Your task to perform on an android device: turn on location history Image 0: 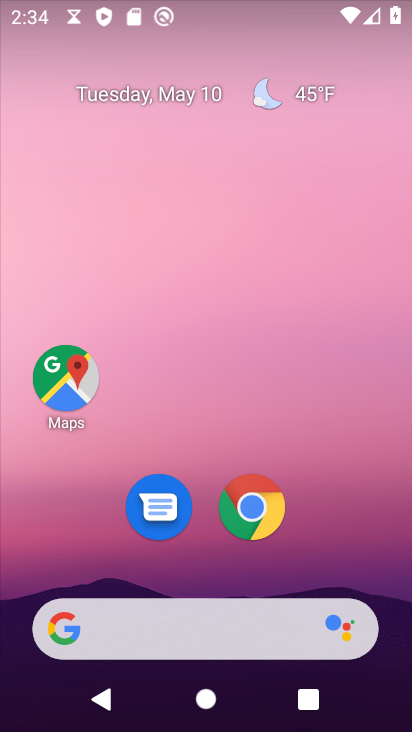
Step 0: drag from (321, 481) to (29, 89)
Your task to perform on an android device: turn on location history Image 1: 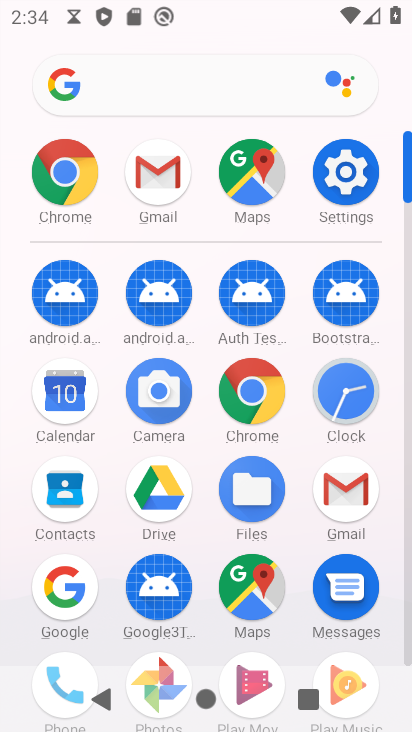
Step 1: click (357, 167)
Your task to perform on an android device: turn on location history Image 2: 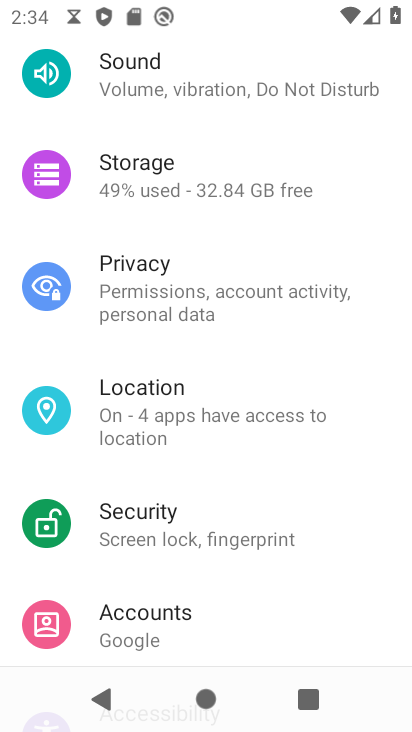
Step 2: click (193, 418)
Your task to perform on an android device: turn on location history Image 3: 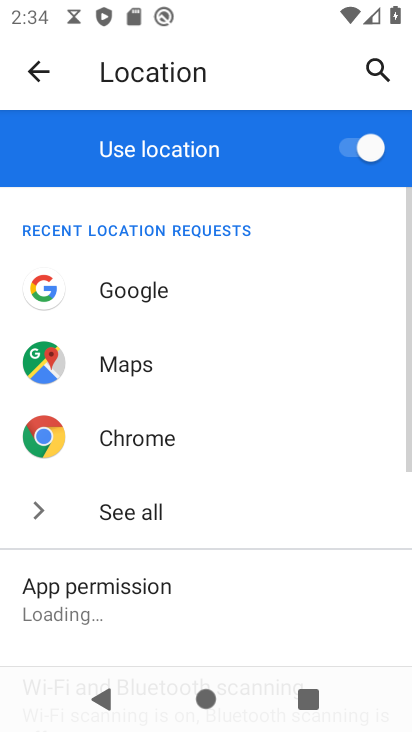
Step 3: drag from (129, 629) to (140, 224)
Your task to perform on an android device: turn on location history Image 4: 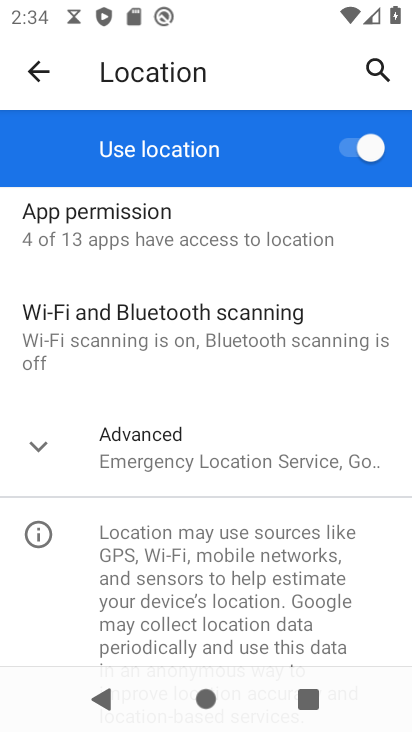
Step 4: click (149, 463)
Your task to perform on an android device: turn on location history Image 5: 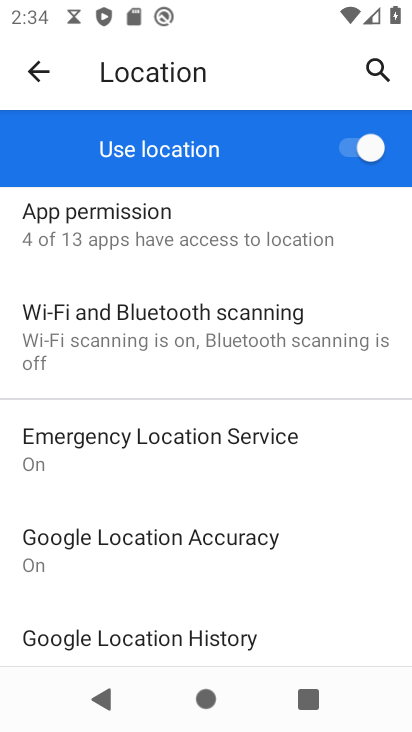
Step 5: click (147, 636)
Your task to perform on an android device: turn on location history Image 6: 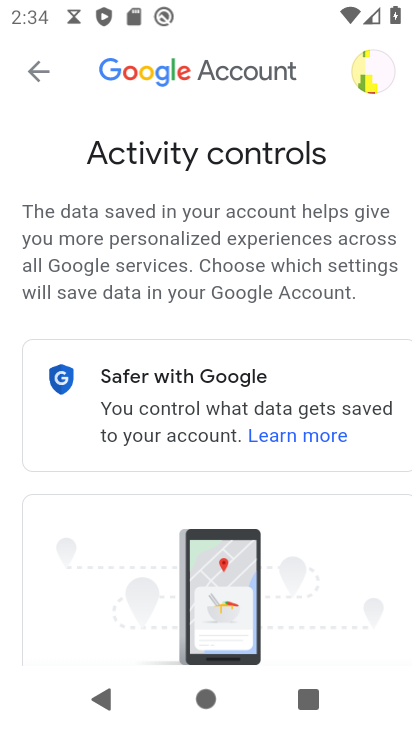
Step 6: task complete